Your task to perform on an android device: Open maps Image 0: 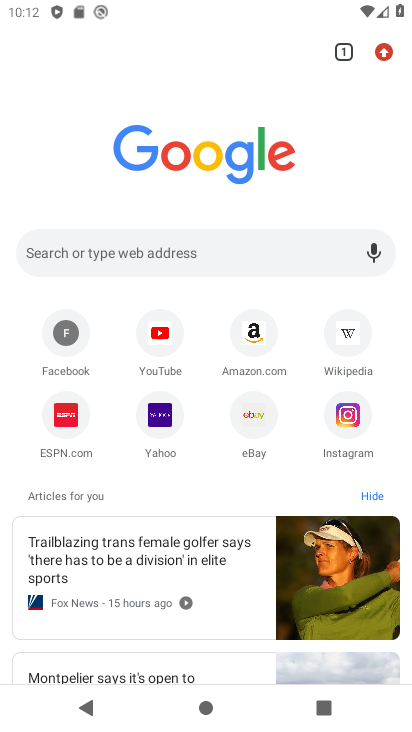
Step 0: press home button
Your task to perform on an android device: Open maps Image 1: 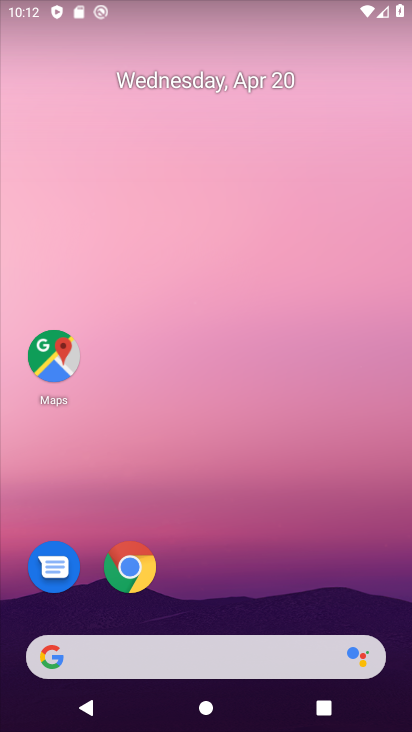
Step 1: click (51, 358)
Your task to perform on an android device: Open maps Image 2: 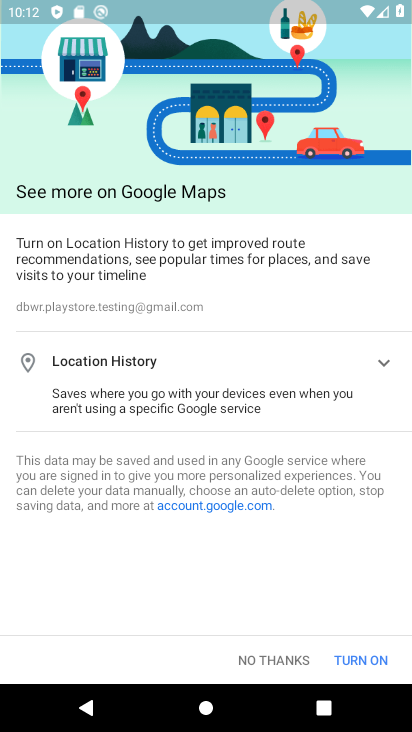
Step 2: click (267, 657)
Your task to perform on an android device: Open maps Image 3: 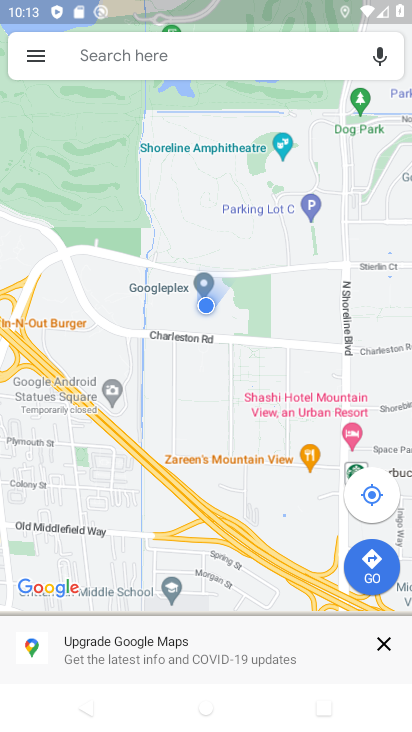
Step 3: task complete